Your task to perform on an android device: Open calendar and show me the second week of next month Image 0: 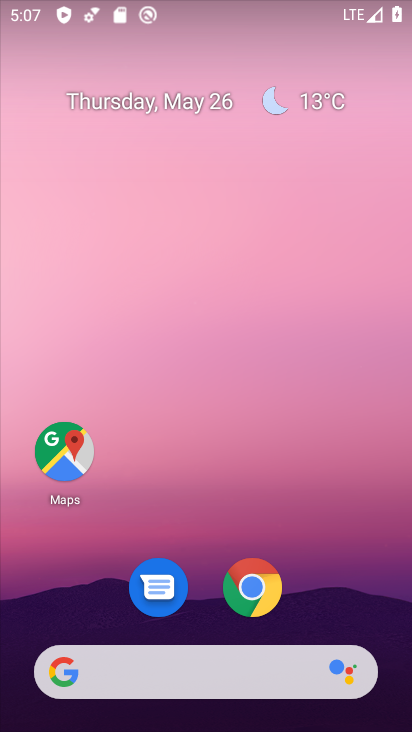
Step 0: drag from (199, 727) to (206, 152)
Your task to perform on an android device: Open calendar and show me the second week of next month Image 1: 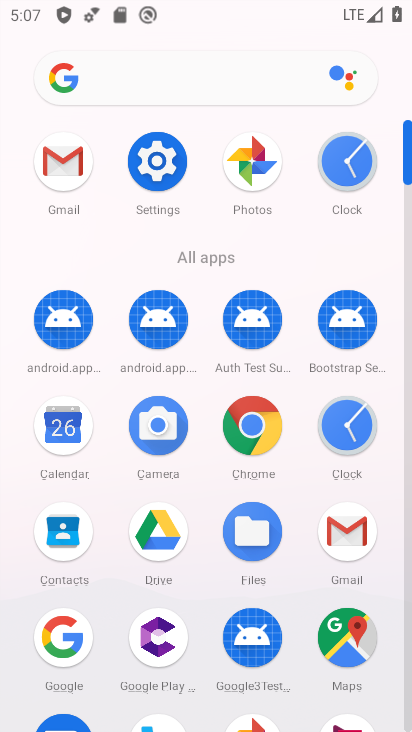
Step 1: click (58, 432)
Your task to perform on an android device: Open calendar and show me the second week of next month Image 2: 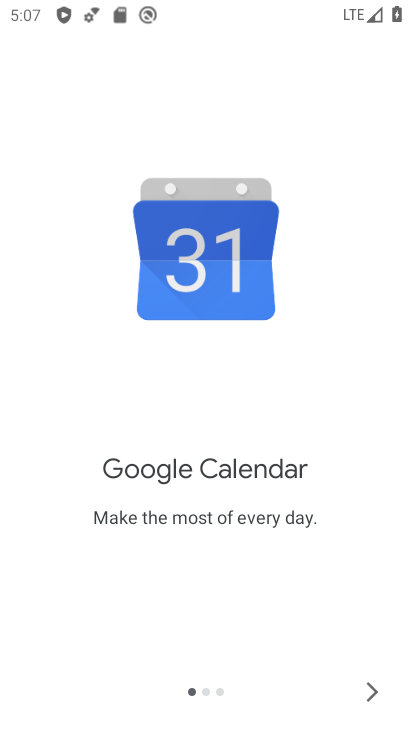
Step 2: click (368, 682)
Your task to perform on an android device: Open calendar and show me the second week of next month Image 3: 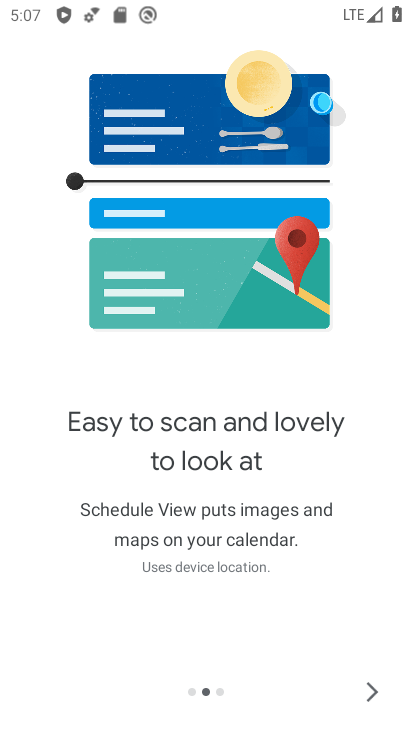
Step 3: click (373, 684)
Your task to perform on an android device: Open calendar and show me the second week of next month Image 4: 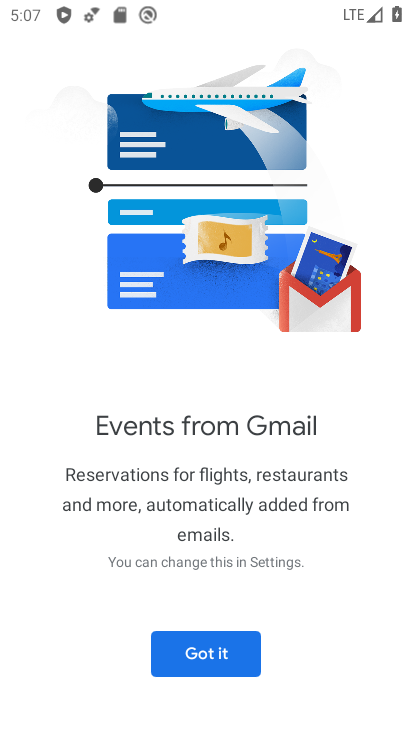
Step 4: click (211, 654)
Your task to perform on an android device: Open calendar and show me the second week of next month Image 5: 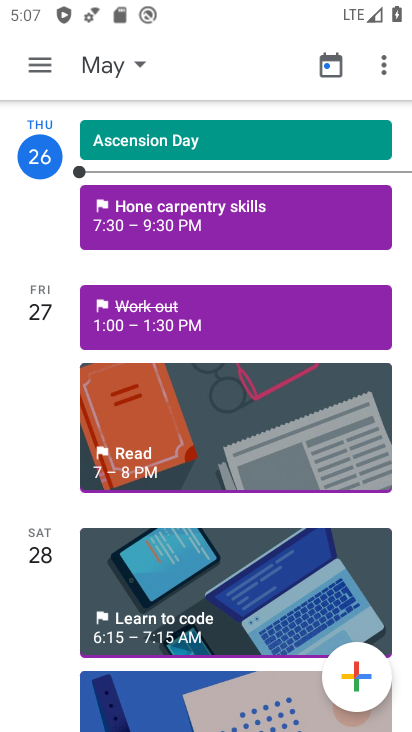
Step 5: click (139, 57)
Your task to perform on an android device: Open calendar and show me the second week of next month Image 6: 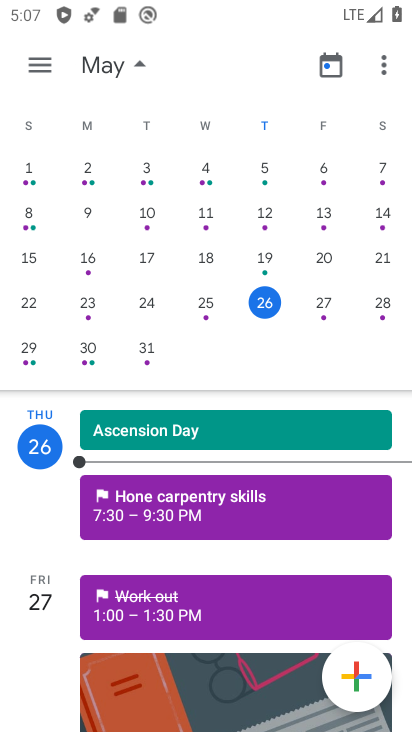
Step 6: drag from (353, 296) to (3, 247)
Your task to perform on an android device: Open calendar and show me the second week of next month Image 7: 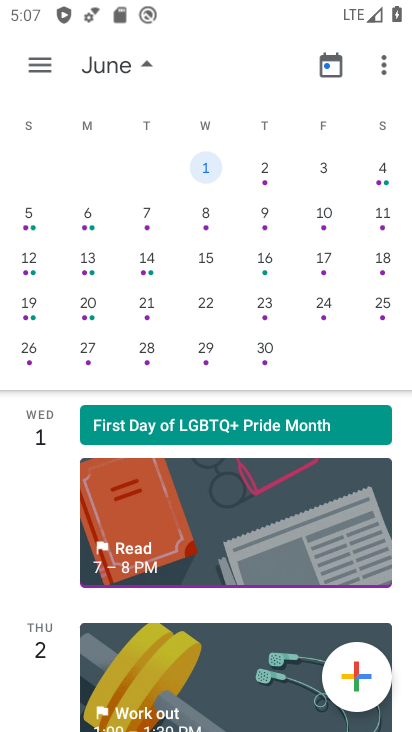
Step 7: click (85, 254)
Your task to perform on an android device: Open calendar and show me the second week of next month Image 8: 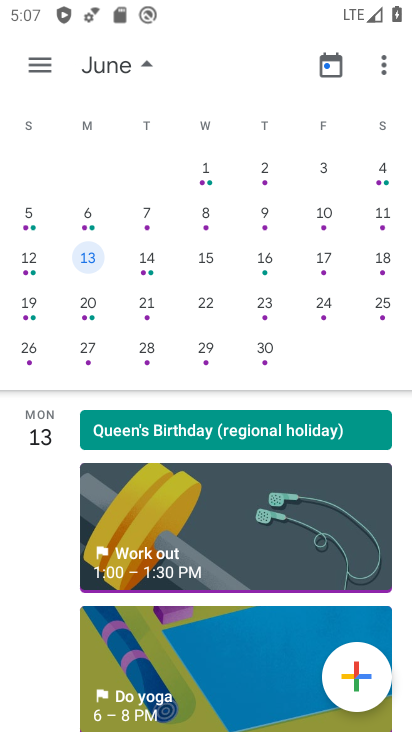
Step 8: click (42, 68)
Your task to perform on an android device: Open calendar and show me the second week of next month Image 9: 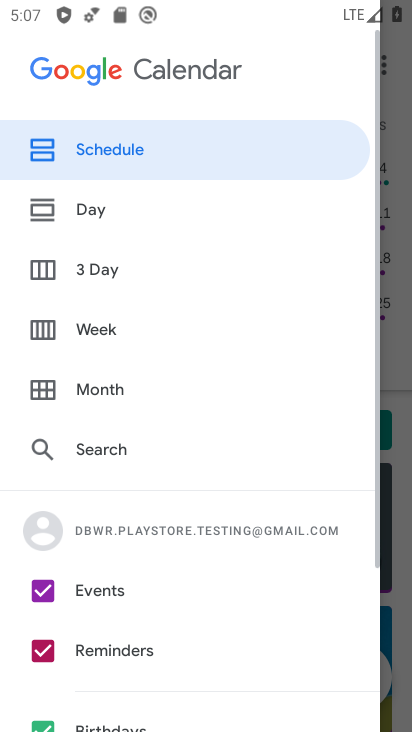
Step 9: click (107, 328)
Your task to perform on an android device: Open calendar and show me the second week of next month Image 10: 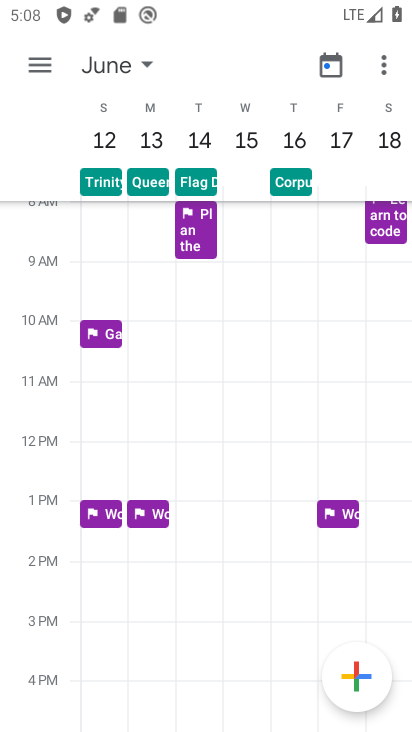
Step 10: task complete